Your task to perform on an android device: toggle javascript in the chrome app Image 0: 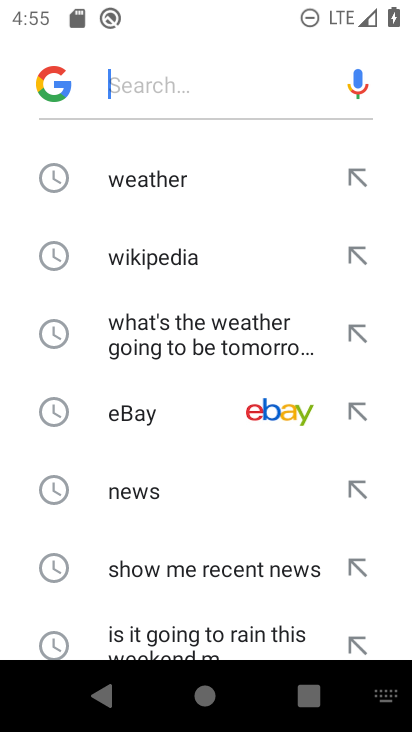
Step 0: press back button
Your task to perform on an android device: toggle javascript in the chrome app Image 1: 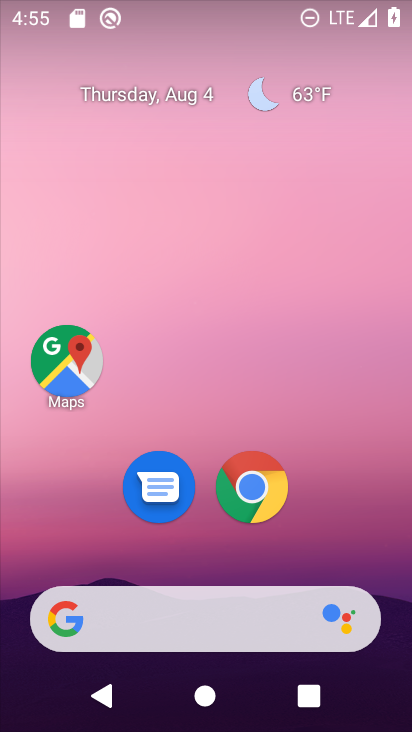
Step 1: click (268, 473)
Your task to perform on an android device: toggle javascript in the chrome app Image 2: 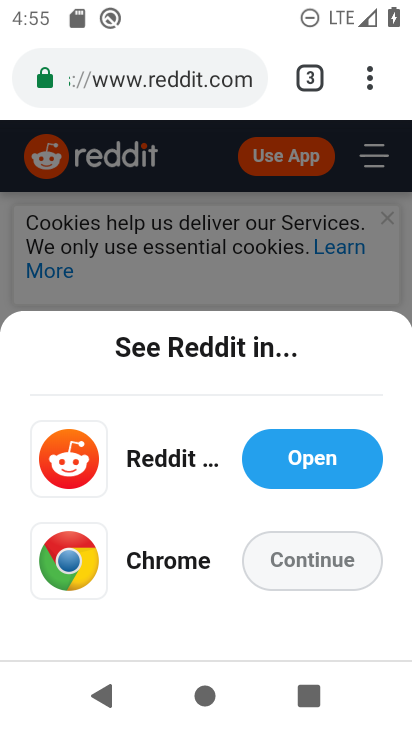
Step 2: drag from (367, 85) to (120, 586)
Your task to perform on an android device: toggle javascript in the chrome app Image 3: 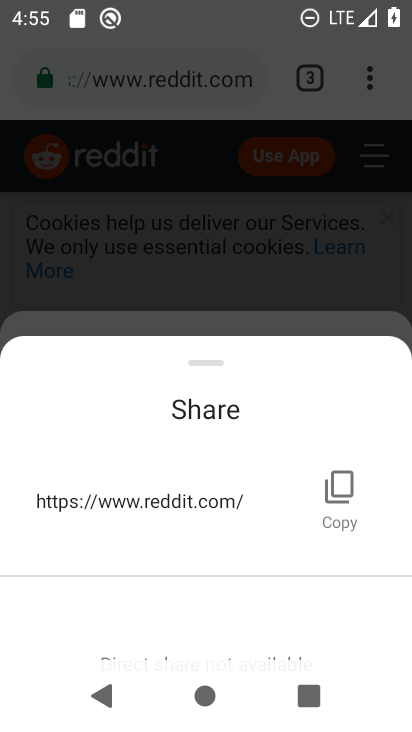
Step 3: click (228, 239)
Your task to perform on an android device: toggle javascript in the chrome app Image 4: 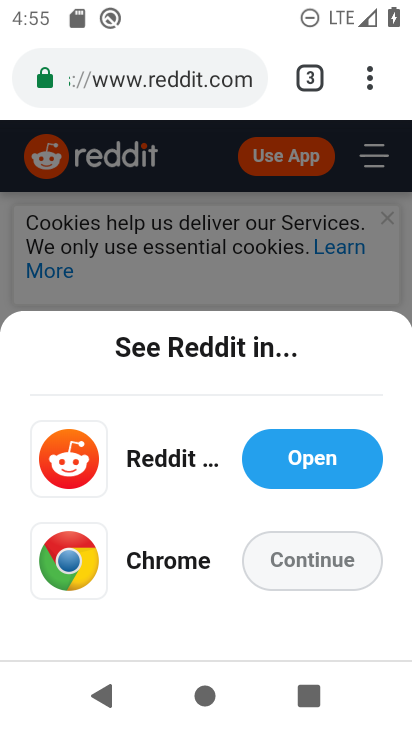
Step 4: drag from (367, 81) to (119, 550)
Your task to perform on an android device: toggle javascript in the chrome app Image 5: 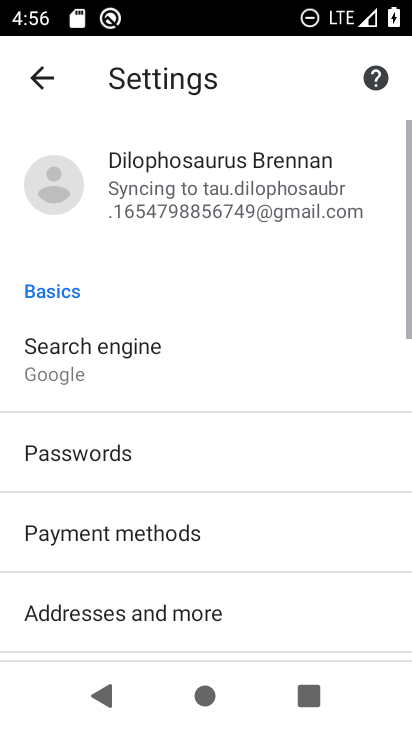
Step 5: drag from (83, 572) to (154, 186)
Your task to perform on an android device: toggle javascript in the chrome app Image 6: 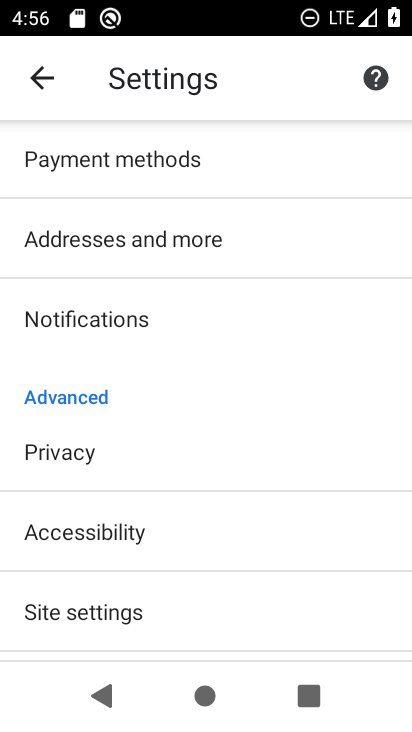
Step 6: click (111, 602)
Your task to perform on an android device: toggle javascript in the chrome app Image 7: 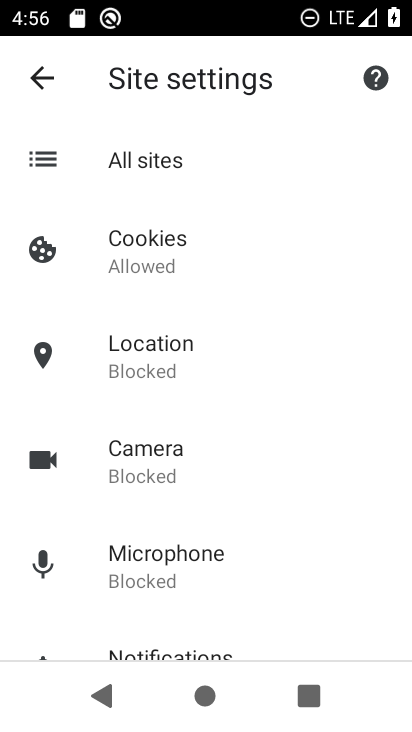
Step 7: drag from (245, 594) to (327, 91)
Your task to perform on an android device: toggle javascript in the chrome app Image 8: 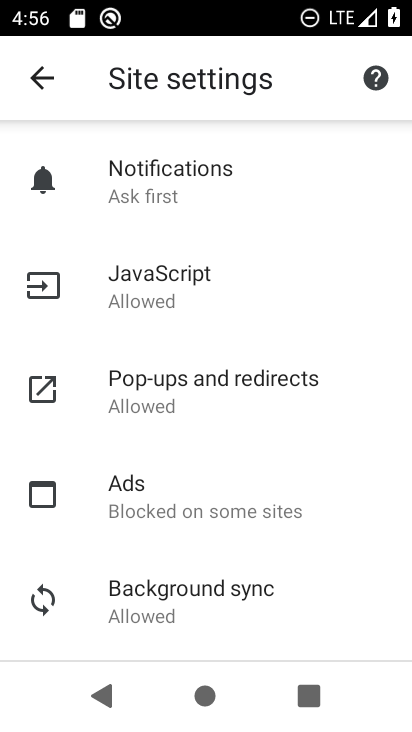
Step 8: click (180, 298)
Your task to perform on an android device: toggle javascript in the chrome app Image 9: 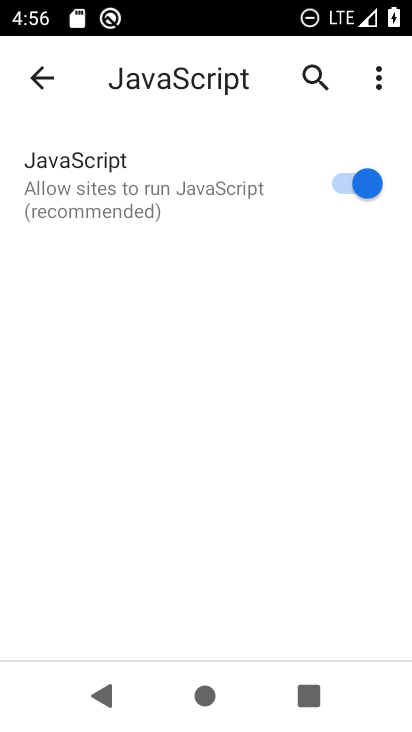
Step 9: click (366, 188)
Your task to perform on an android device: toggle javascript in the chrome app Image 10: 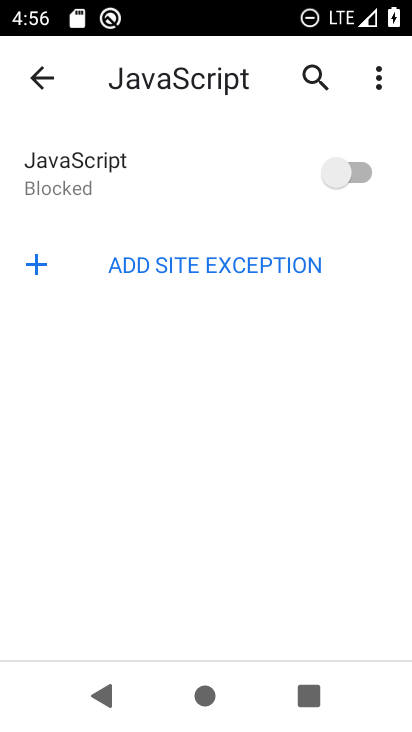
Step 10: task complete